Your task to perform on an android device: Open maps Image 0: 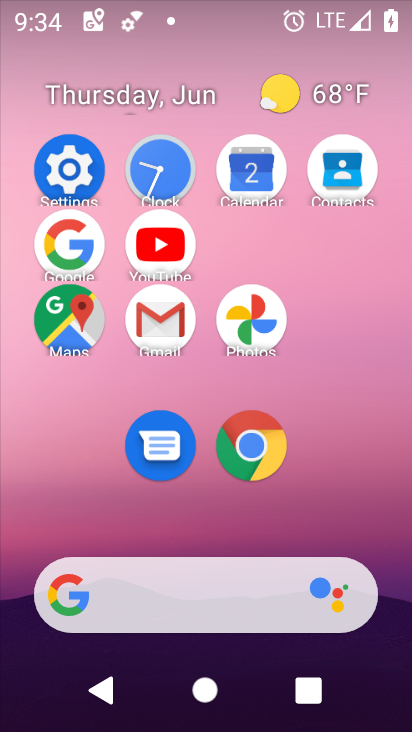
Step 0: click (58, 335)
Your task to perform on an android device: Open maps Image 1: 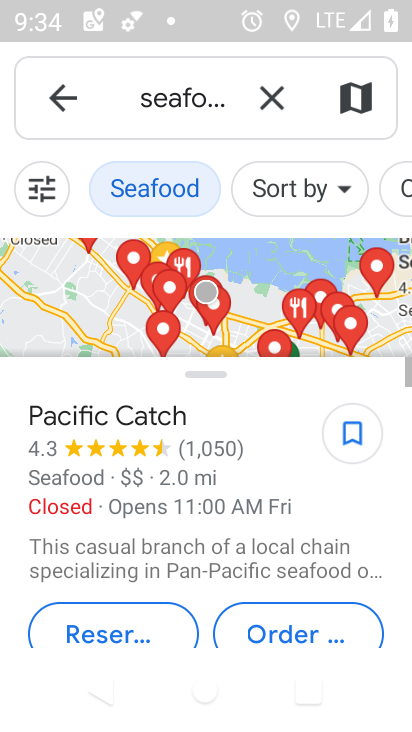
Step 1: task complete